Your task to perform on an android device: What is the recent news? Image 0: 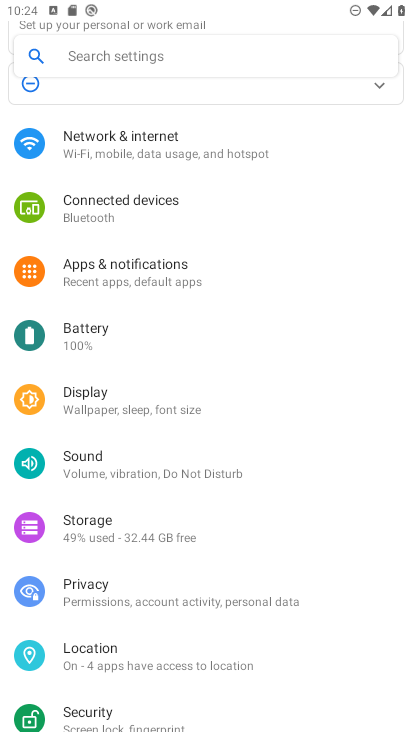
Step 0: press home button
Your task to perform on an android device: What is the recent news? Image 1: 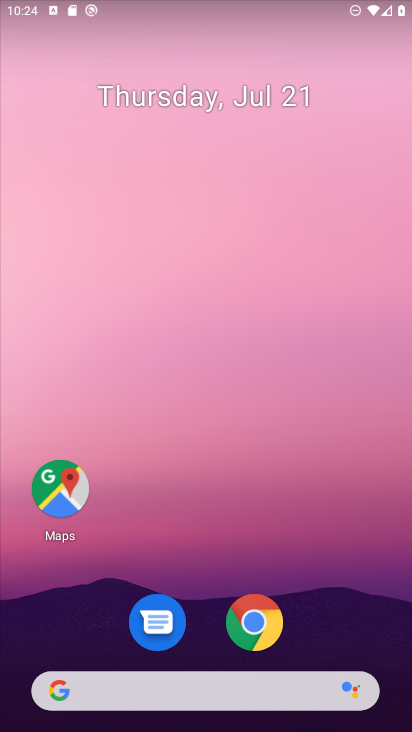
Step 1: click (282, 699)
Your task to perform on an android device: What is the recent news? Image 2: 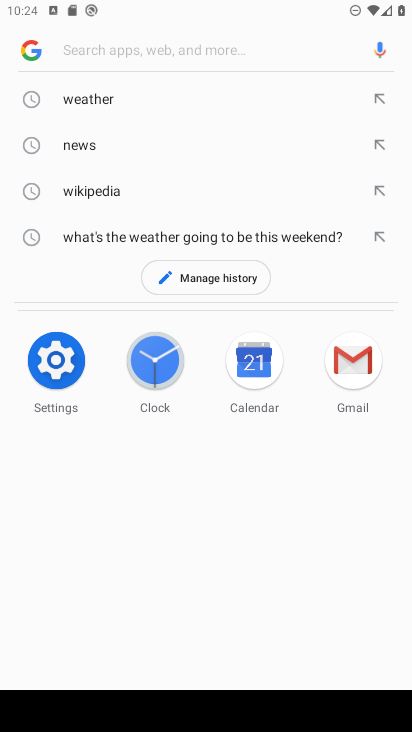
Step 2: type "recent news"
Your task to perform on an android device: What is the recent news? Image 3: 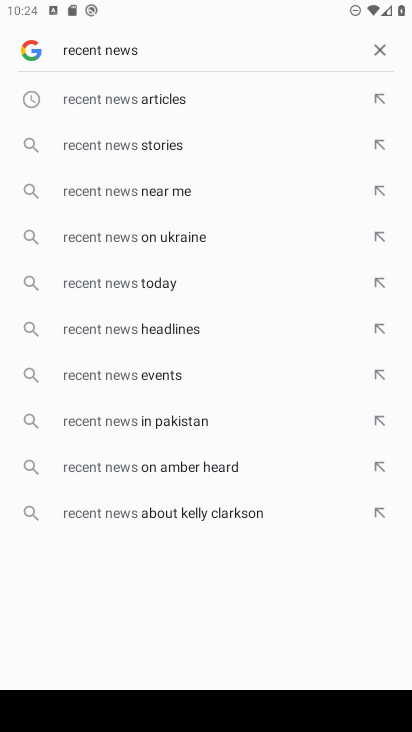
Step 3: press enter
Your task to perform on an android device: What is the recent news? Image 4: 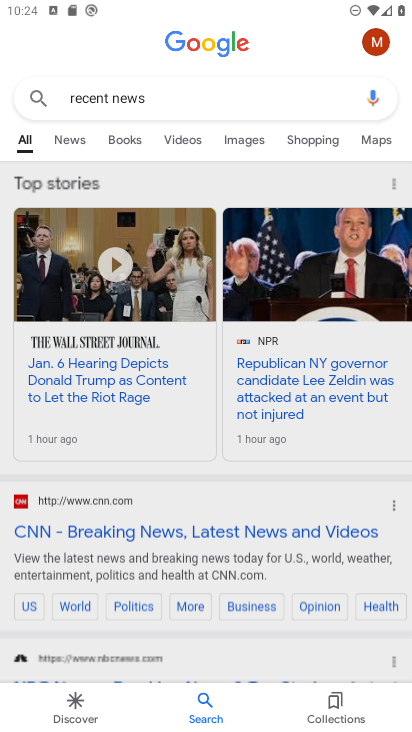
Step 4: task complete